Your task to perform on an android device: What's on my calendar tomorrow? Image 0: 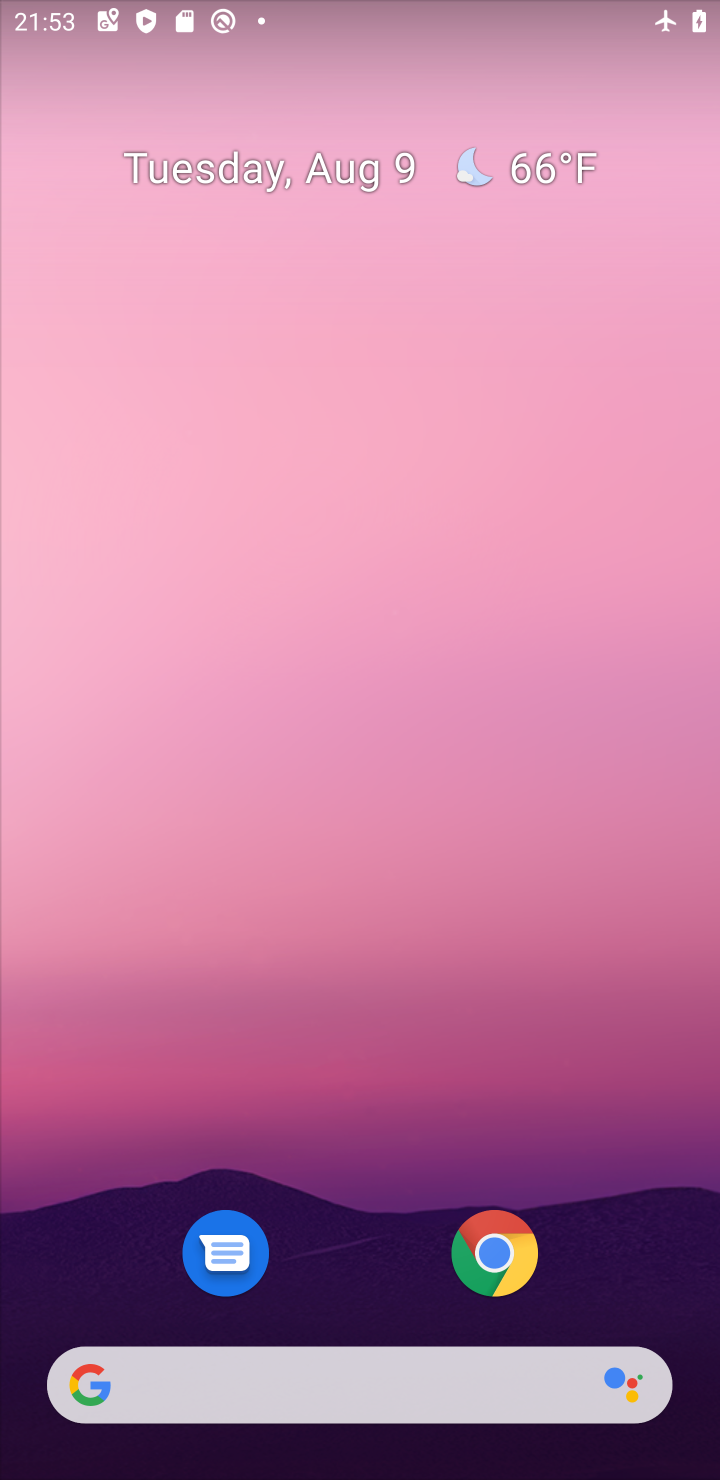
Step 0: press home button
Your task to perform on an android device: What's on my calendar tomorrow? Image 1: 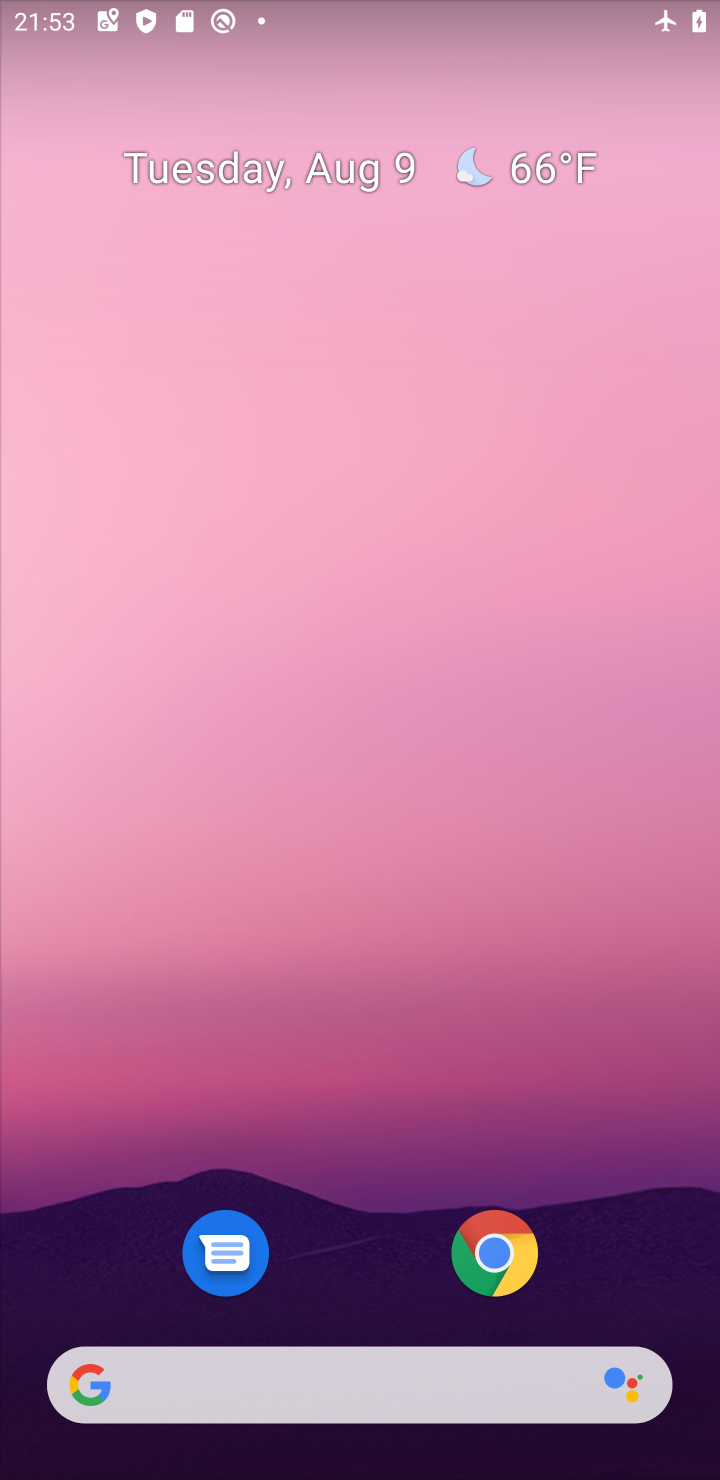
Step 1: drag from (449, 778) to (611, 26)
Your task to perform on an android device: What's on my calendar tomorrow? Image 2: 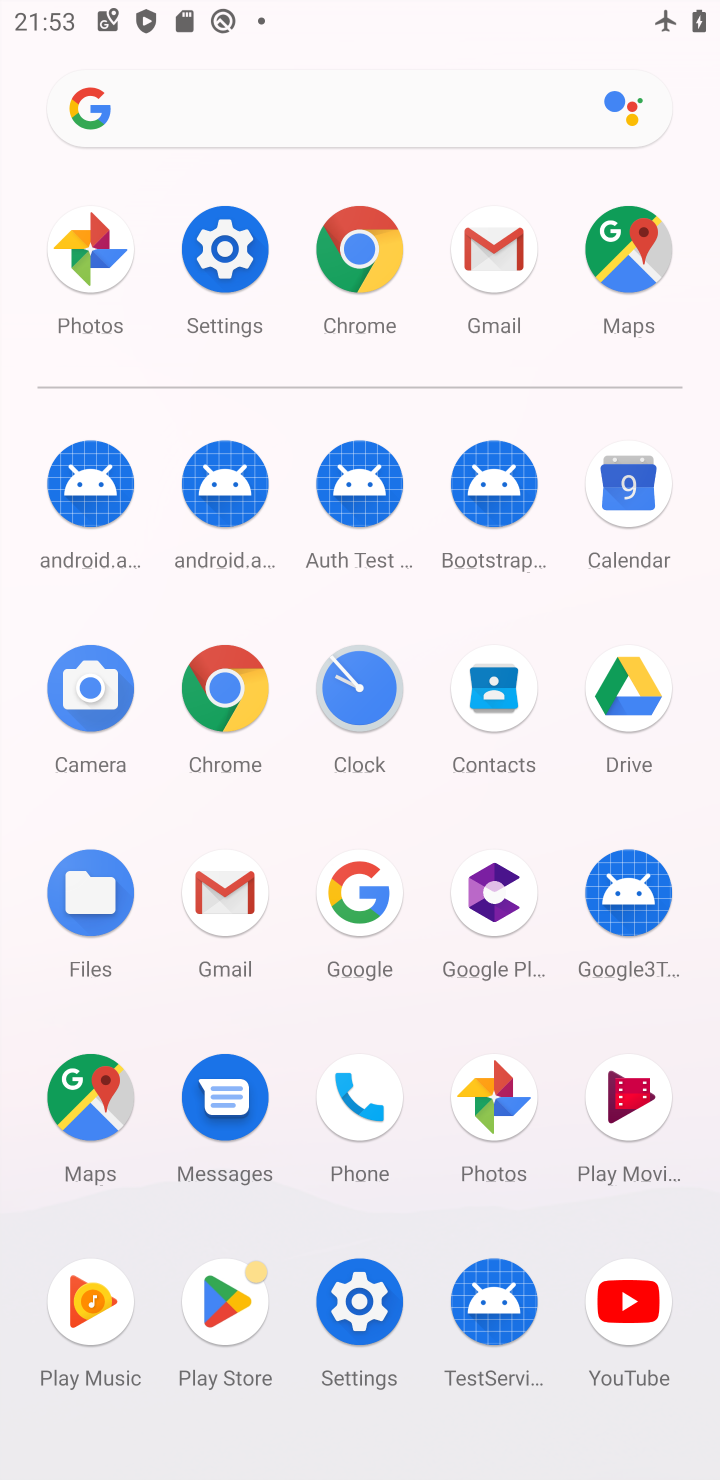
Step 2: click (643, 516)
Your task to perform on an android device: What's on my calendar tomorrow? Image 3: 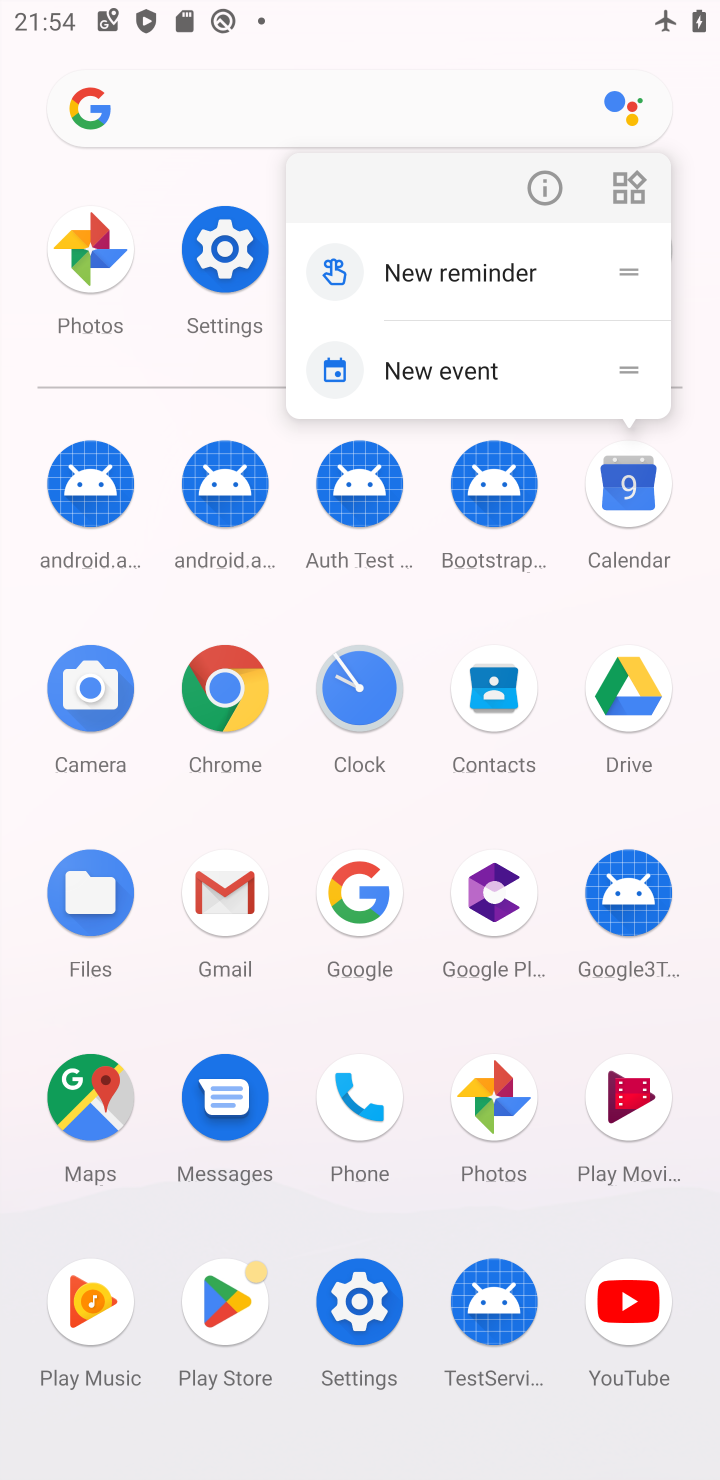
Step 3: click (620, 477)
Your task to perform on an android device: What's on my calendar tomorrow? Image 4: 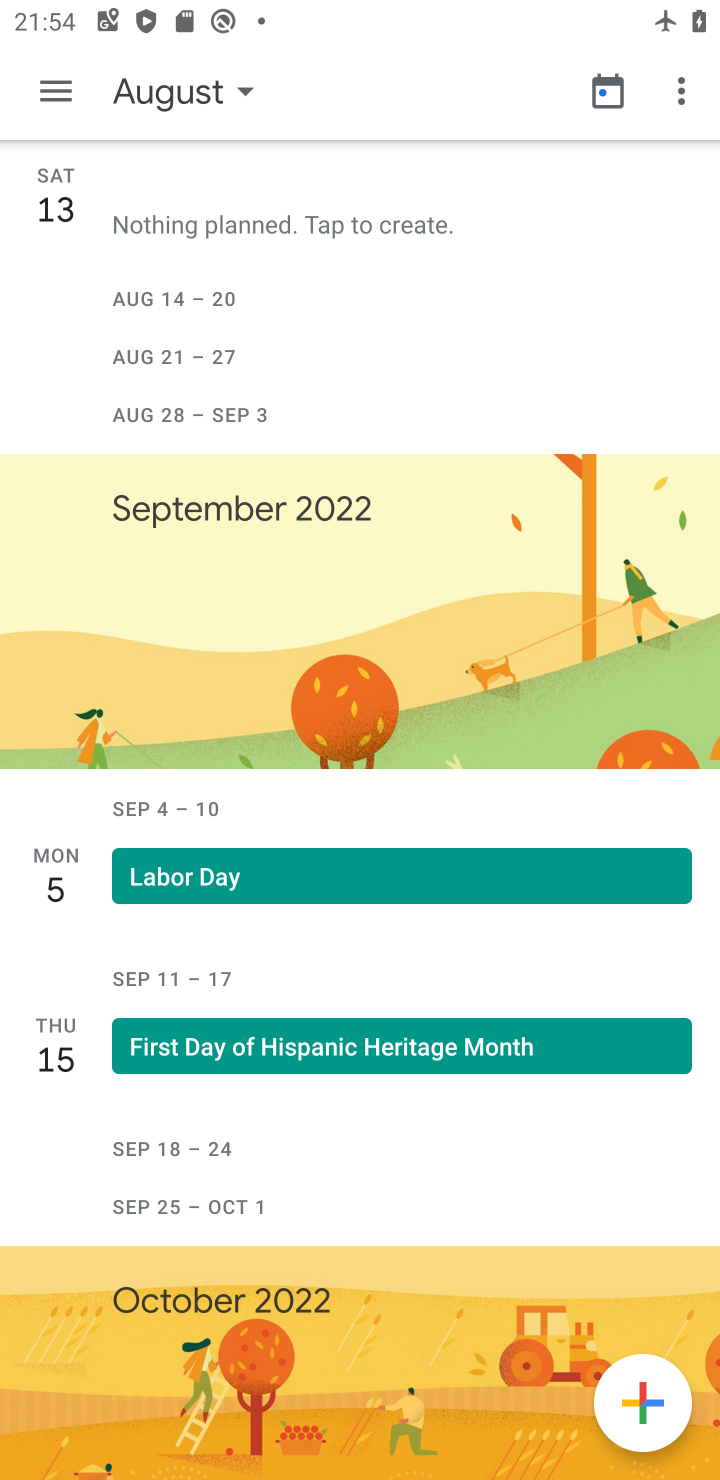
Step 4: click (214, 83)
Your task to perform on an android device: What's on my calendar tomorrow? Image 5: 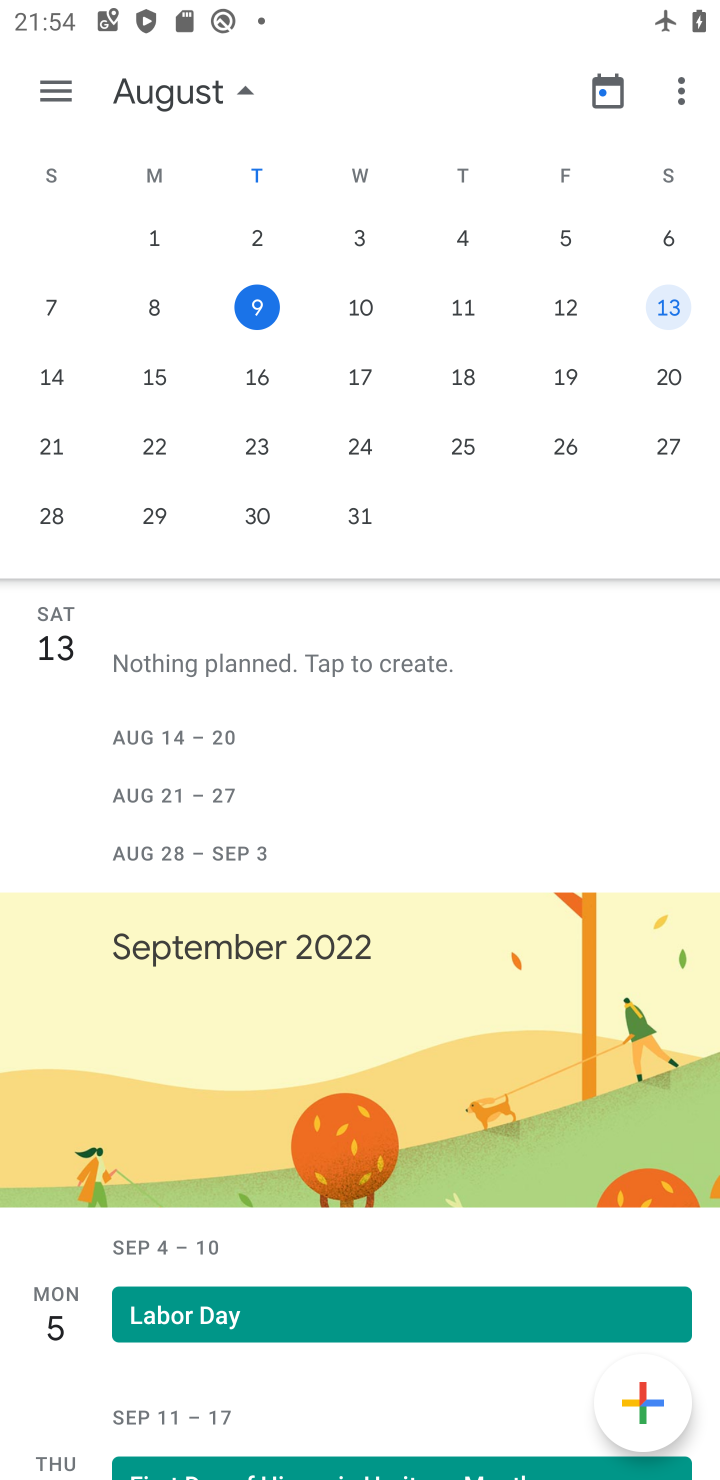
Step 5: click (359, 306)
Your task to perform on an android device: What's on my calendar tomorrow? Image 6: 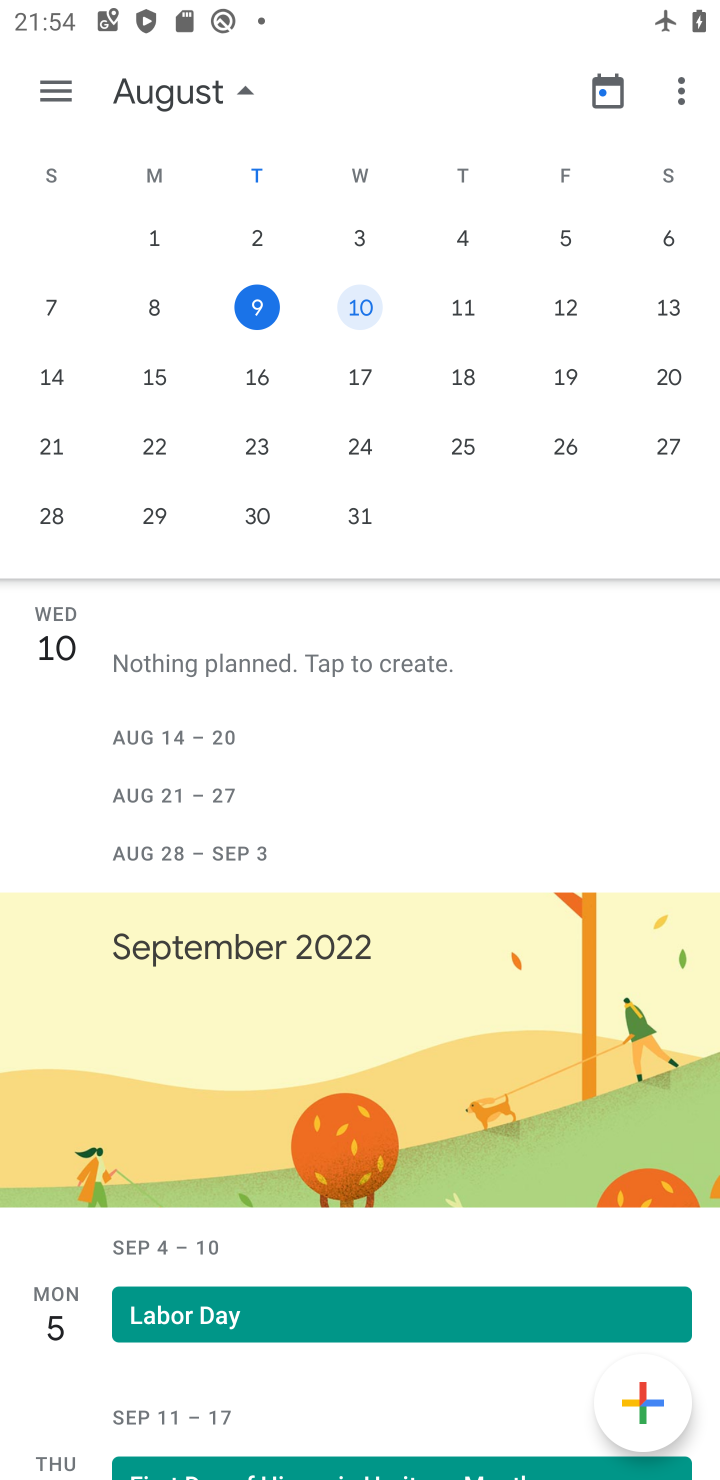
Step 6: task complete